Your task to perform on an android device: move an email to a new category in the gmail app Image 0: 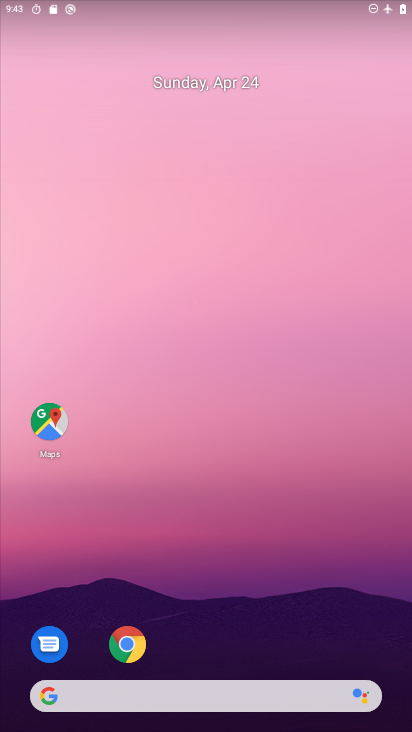
Step 0: drag from (220, 658) to (254, 59)
Your task to perform on an android device: move an email to a new category in the gmail app Image 1: 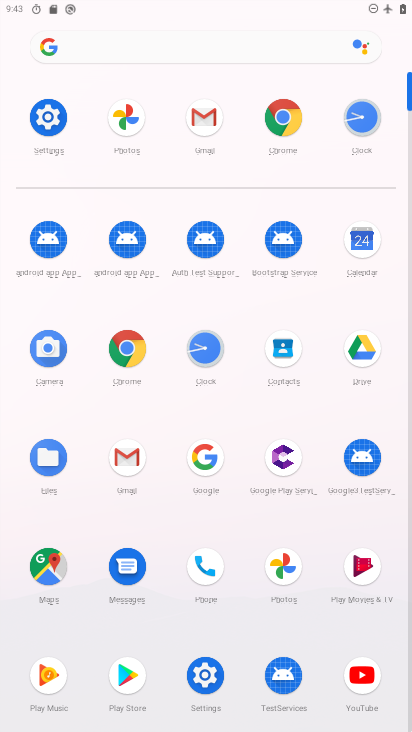
Step 1: click (126, 463)
Your task to perform on an android device: move an email to a new category in the gmail app Image 2: 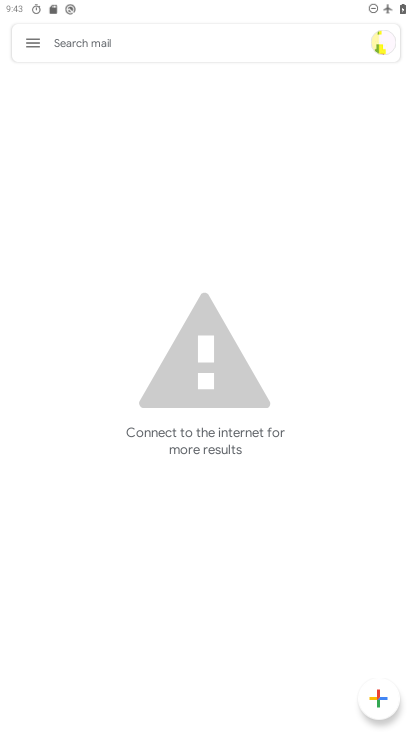
Step 2: task complete